Your task to perform on an android device: What's on my calendar tomorrow? Image 0: 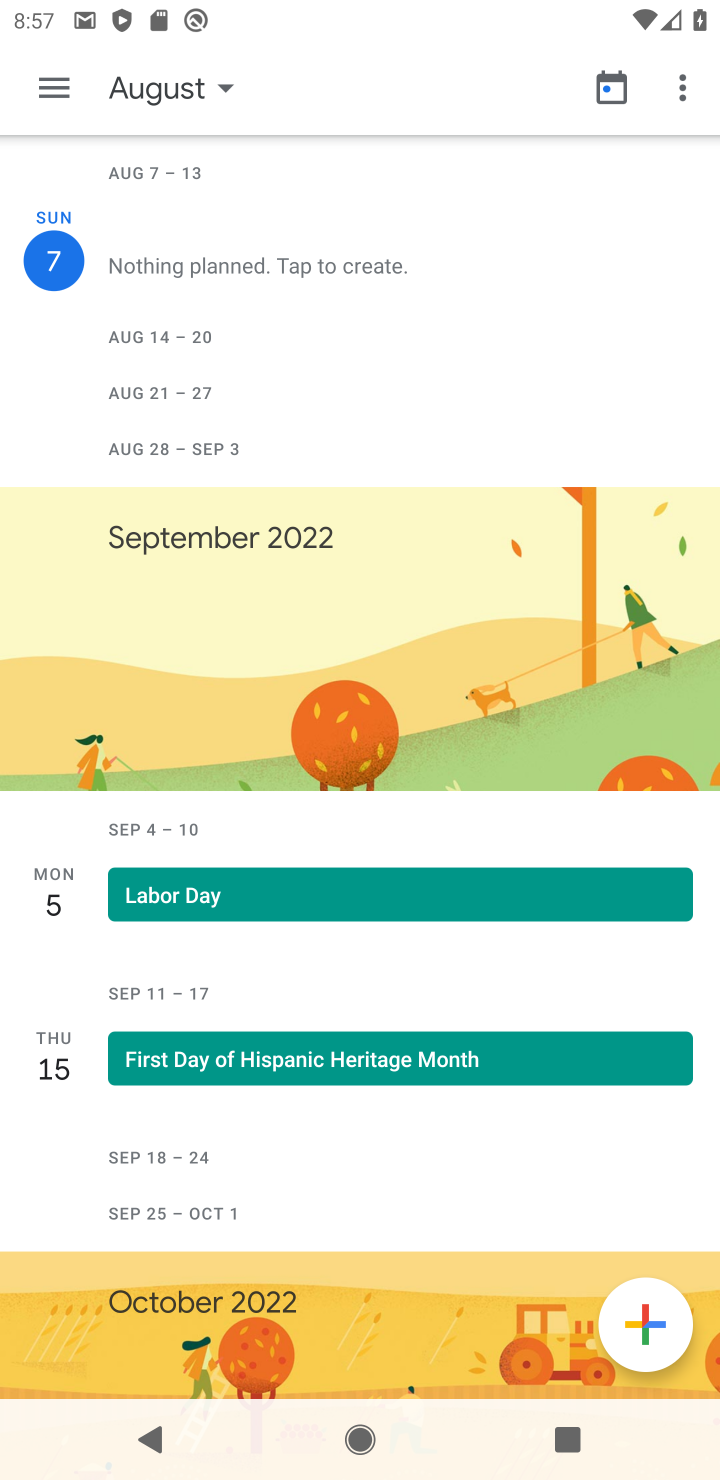
Step 0: press back button
Your task to perform on an android device: What's on my calendar tomorrow? Image 1: 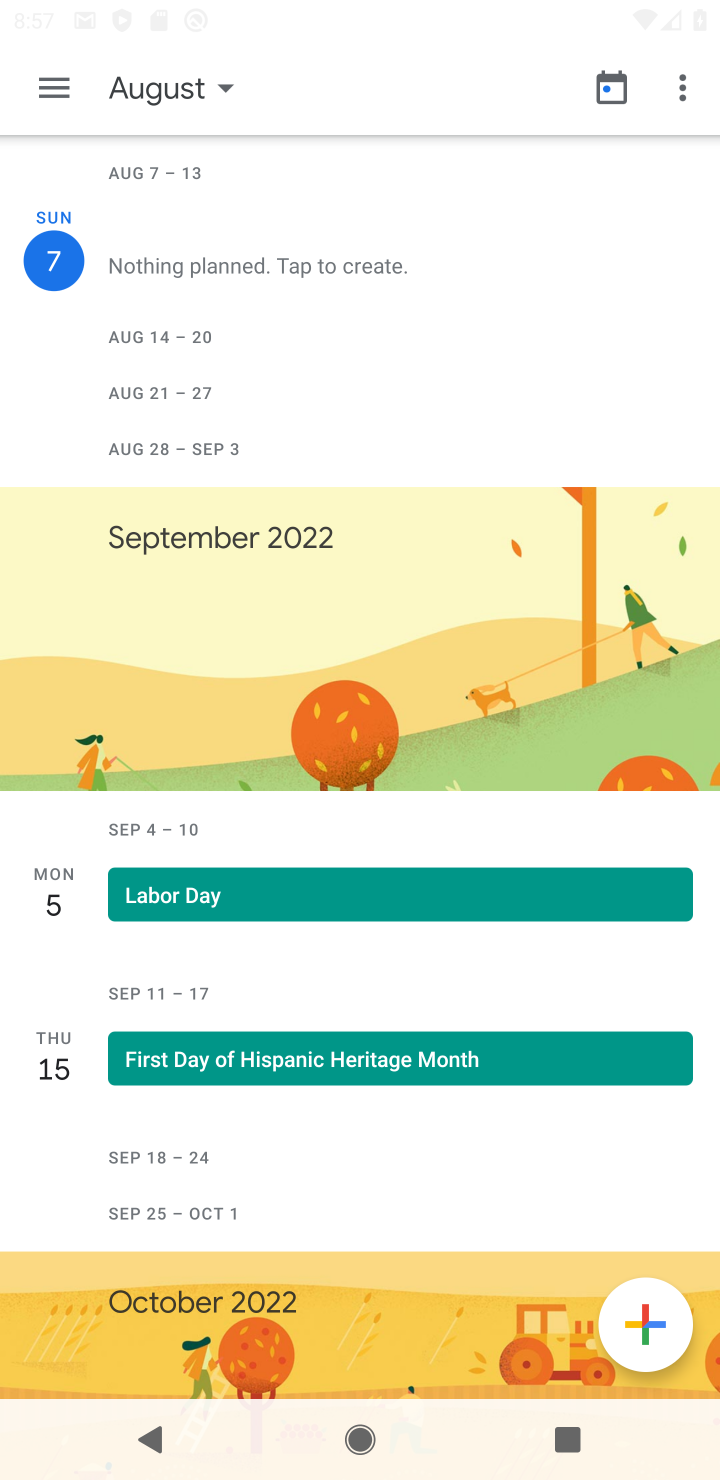
Step 1: press home button
Your task to perform on an android device: What's on my calendar tomorrow? Image 2: 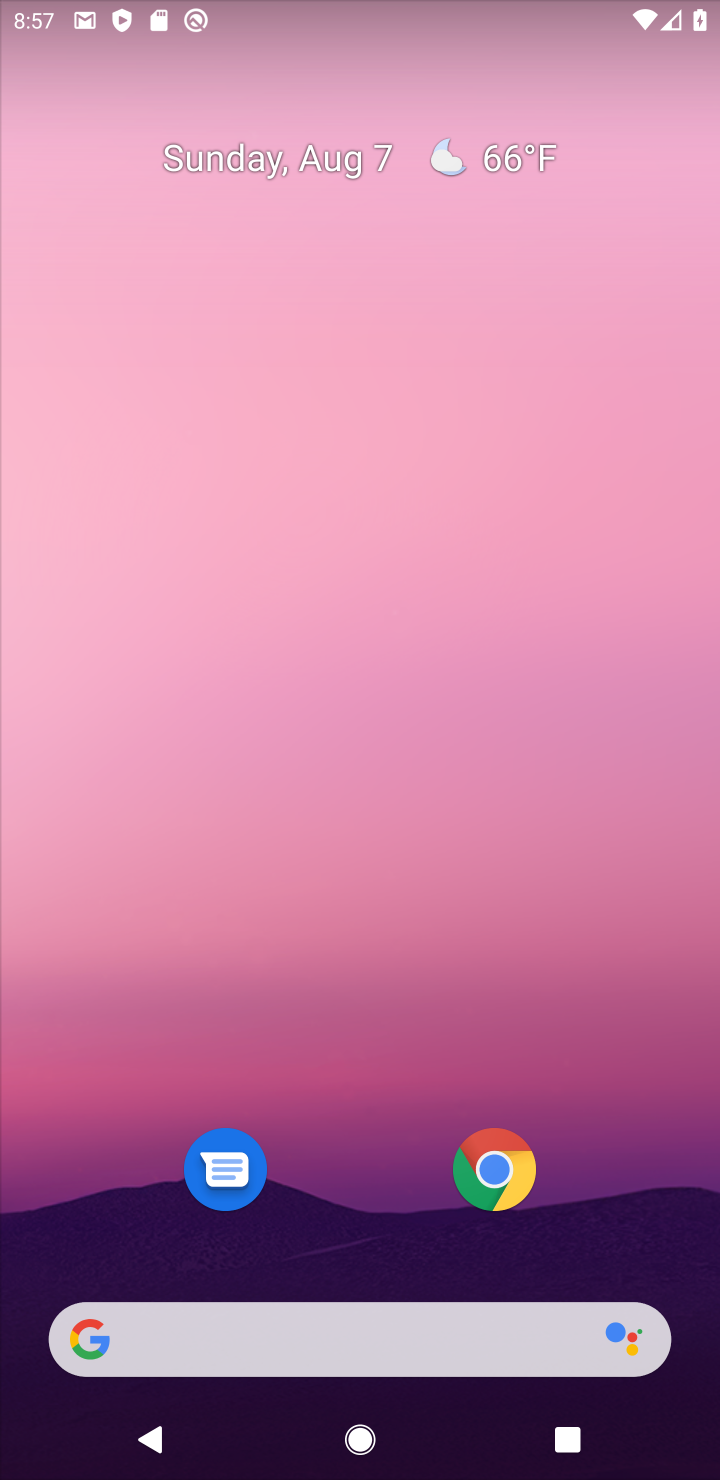
Step 2: drag from (336, 622) to (310, 231)
Your task to perform on an android device: What's on my calendar tomorrow? Image 3: 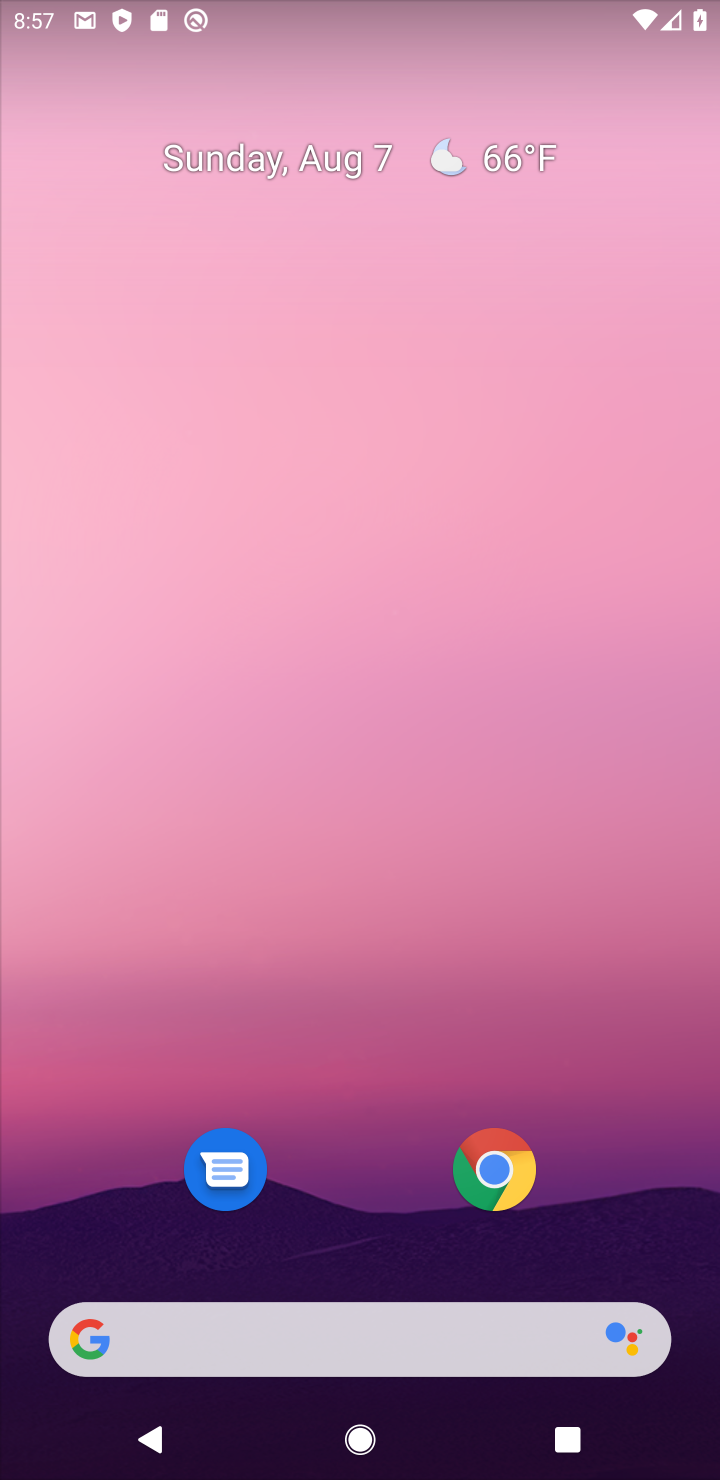
Step 3: drag from (483, 1242) to (379, 166)
Your task to perform on an android device: What's on my calendar tomorrow? Image 4: 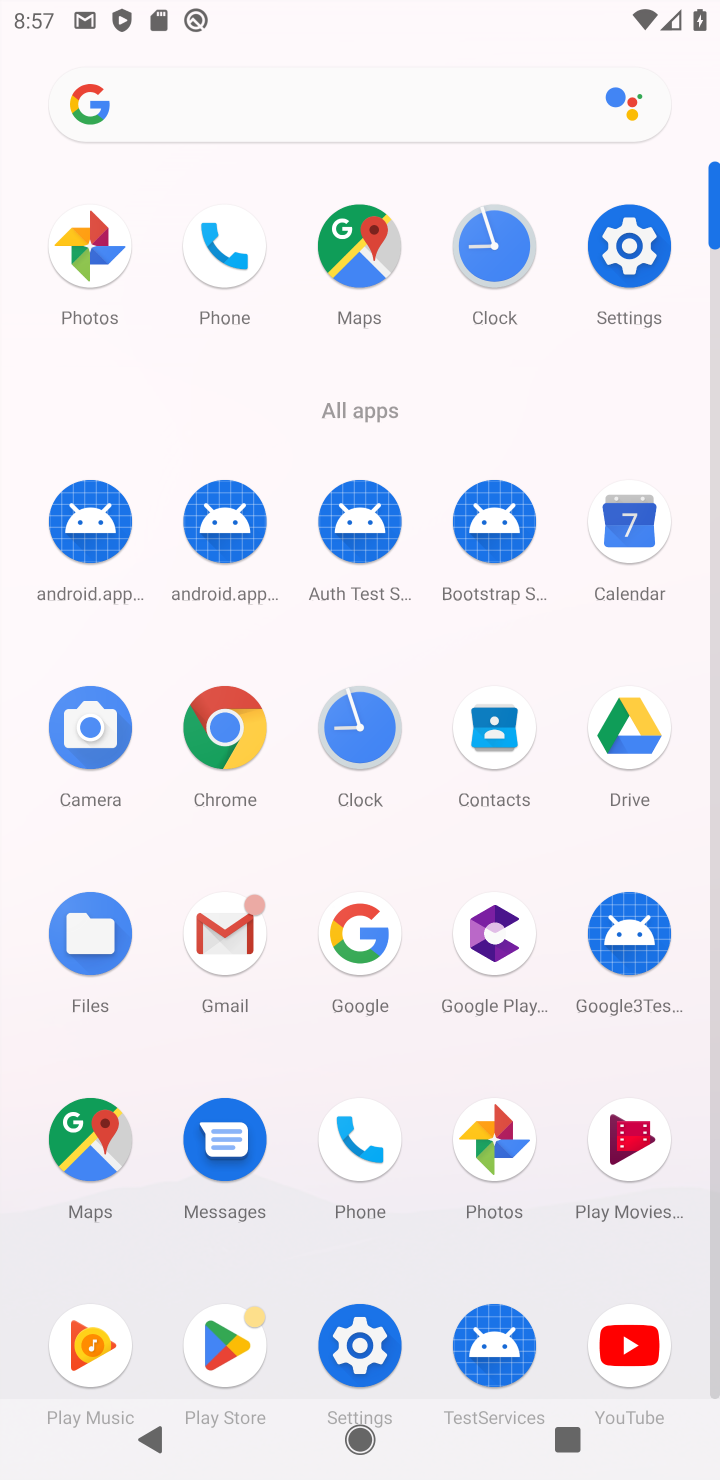
Step 4: click (622, 531)
Your task to perform on an android device: What's on my calendar tomorrow? Image 5: 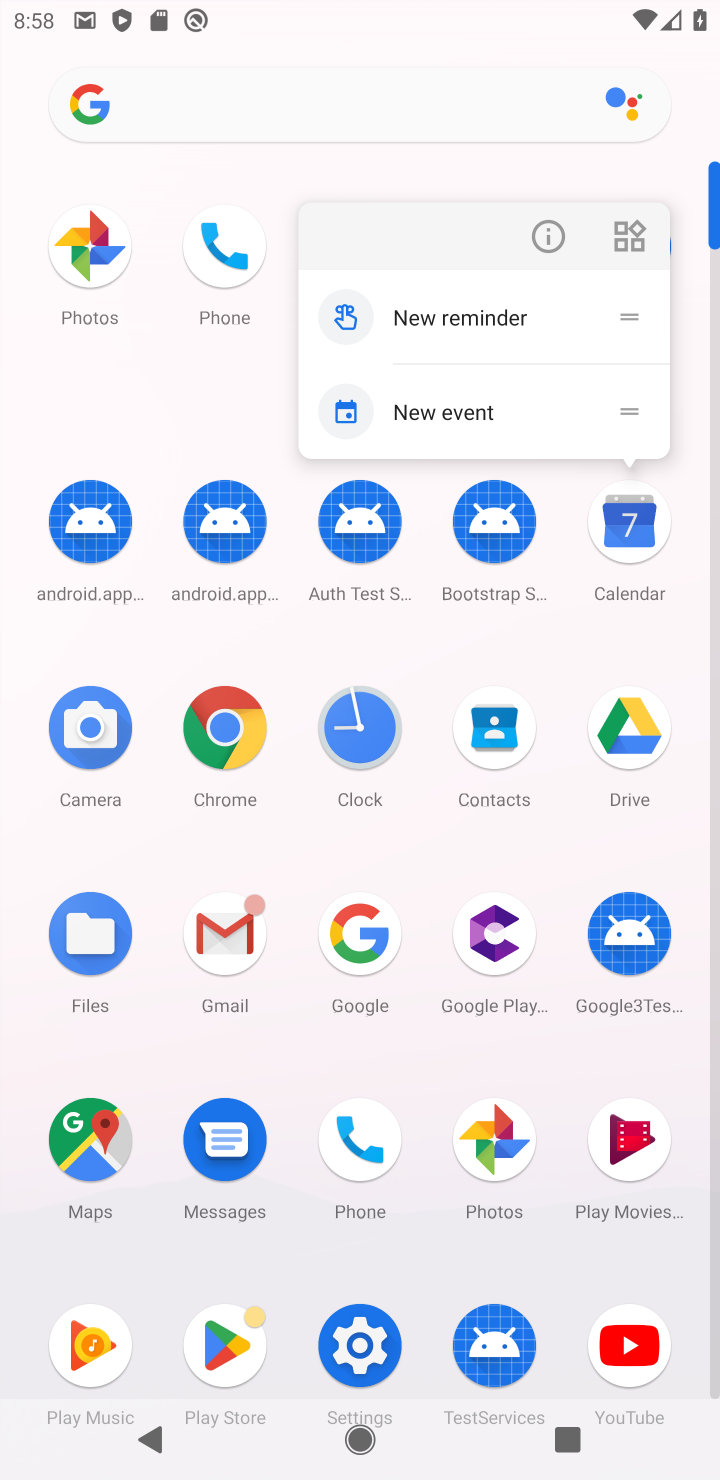
Step 5: click (641, 564)
Your task to perform on an android device: What's on my calendar tomorrow? Image 6: 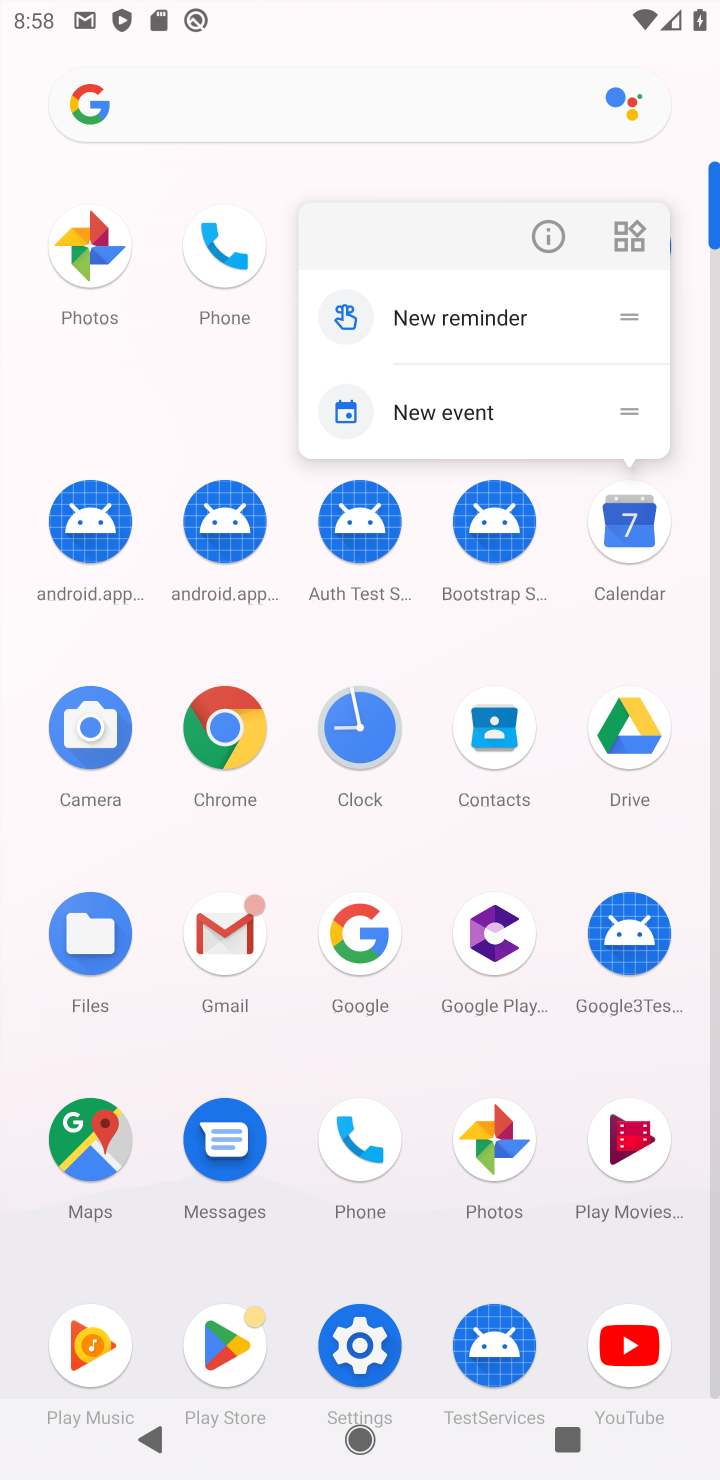
Step 6: click (608, 509)
Your task to perform on an android device: What's on my calendar tomorrow? Image 7: 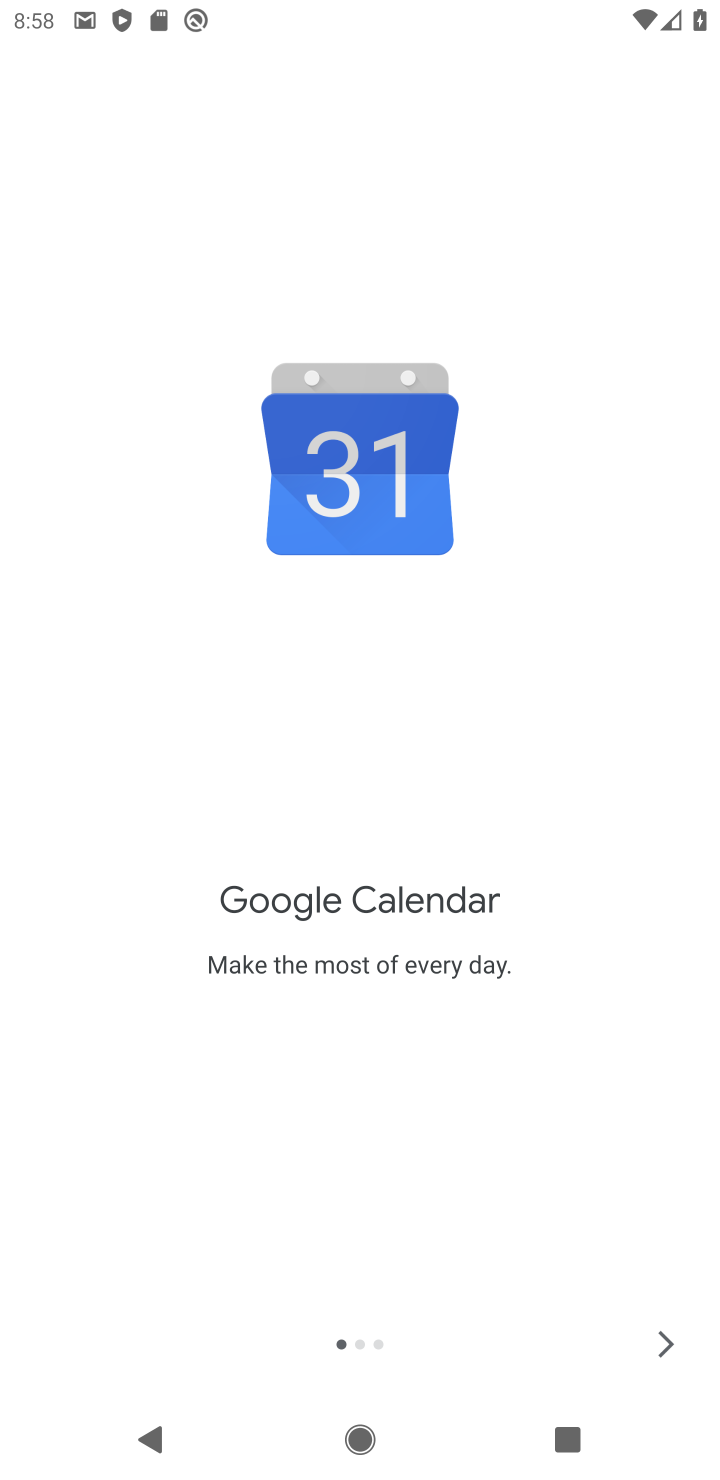
Step 7: click (650, 1355)
Your task to perform on an android device: What's on my calendar tomorrow? Image 8: 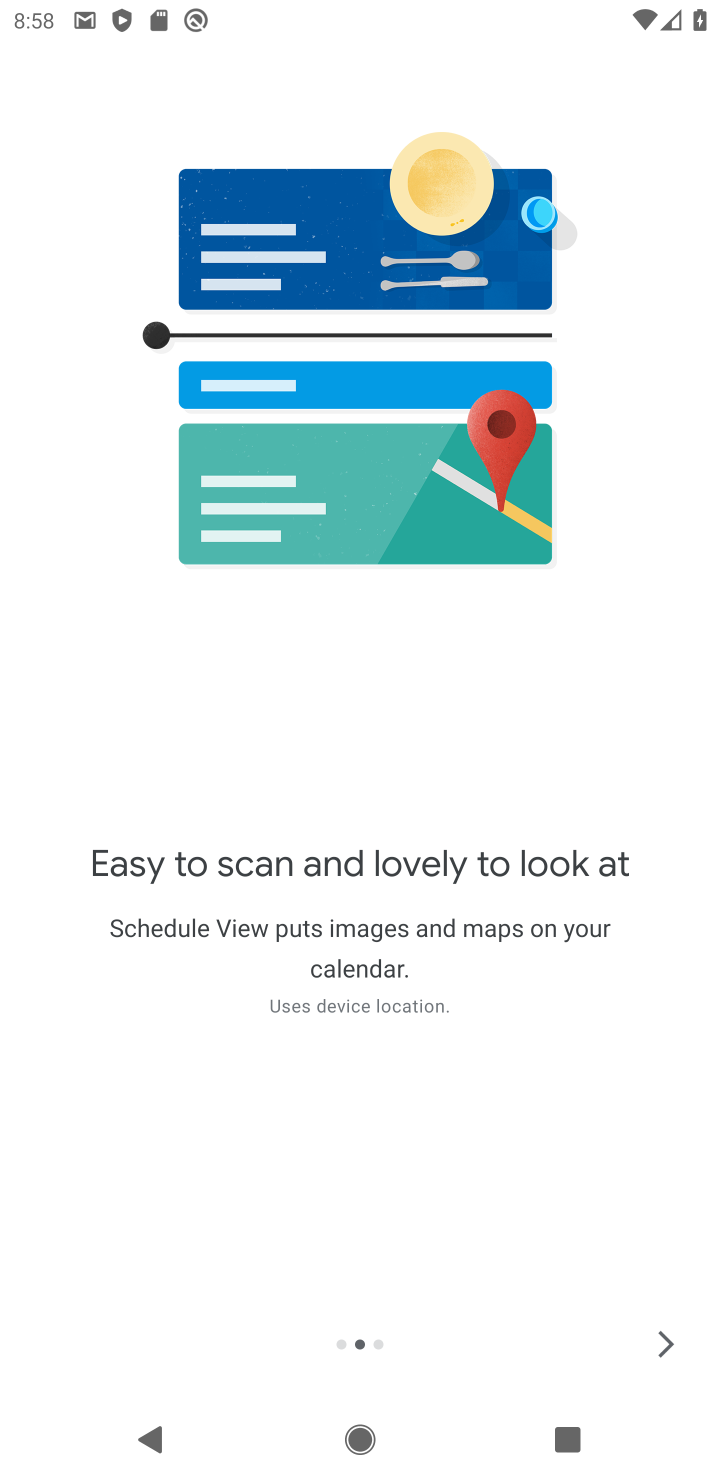
Step 8: click (652, 1357)
Your task to perform on an android device: What's on my calendar tomorrow? Image 9: 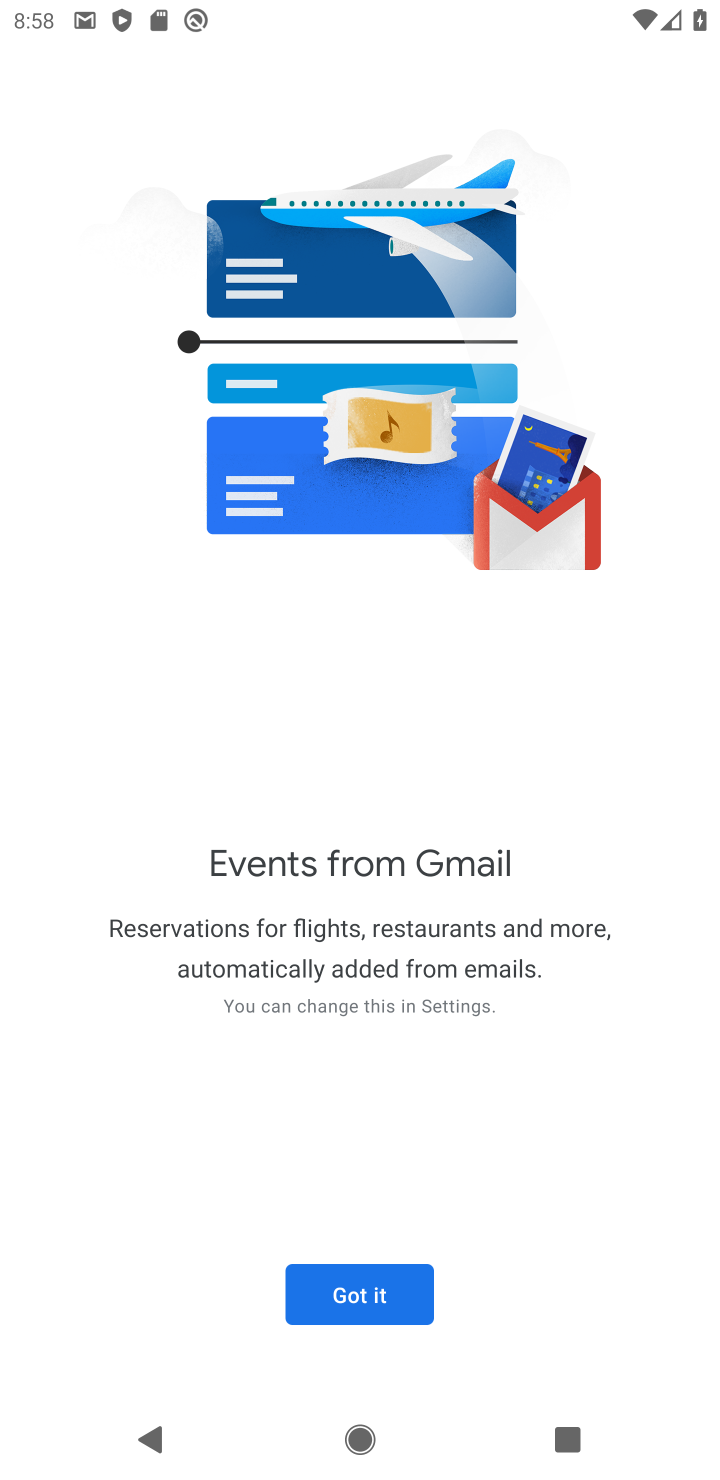
Step 9: click (400, 1272)
Your task to perform on an android device: What's on my calendar tomorrow? Image 10: 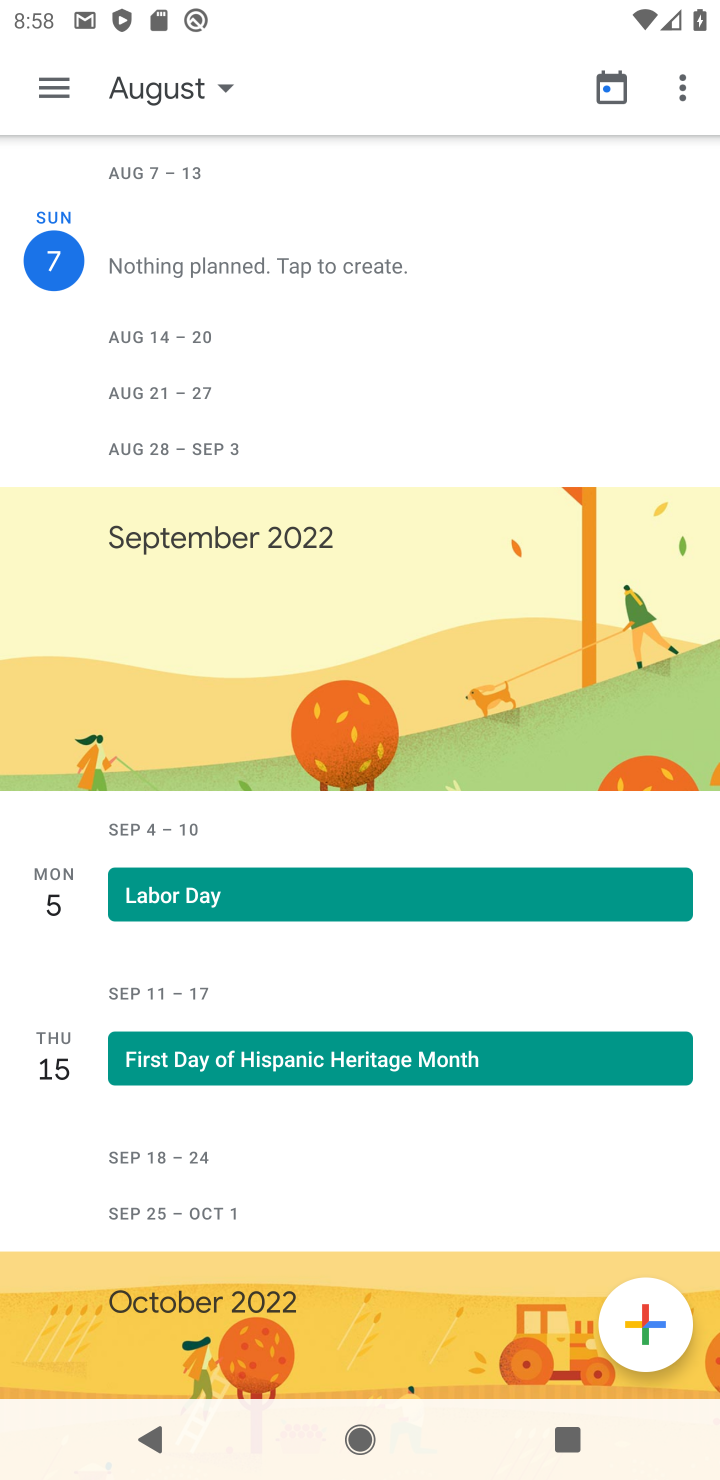
Step 10: click (51, 79)
Your task to perform on an android device: What's on my calendar tomorrow? Image 11: 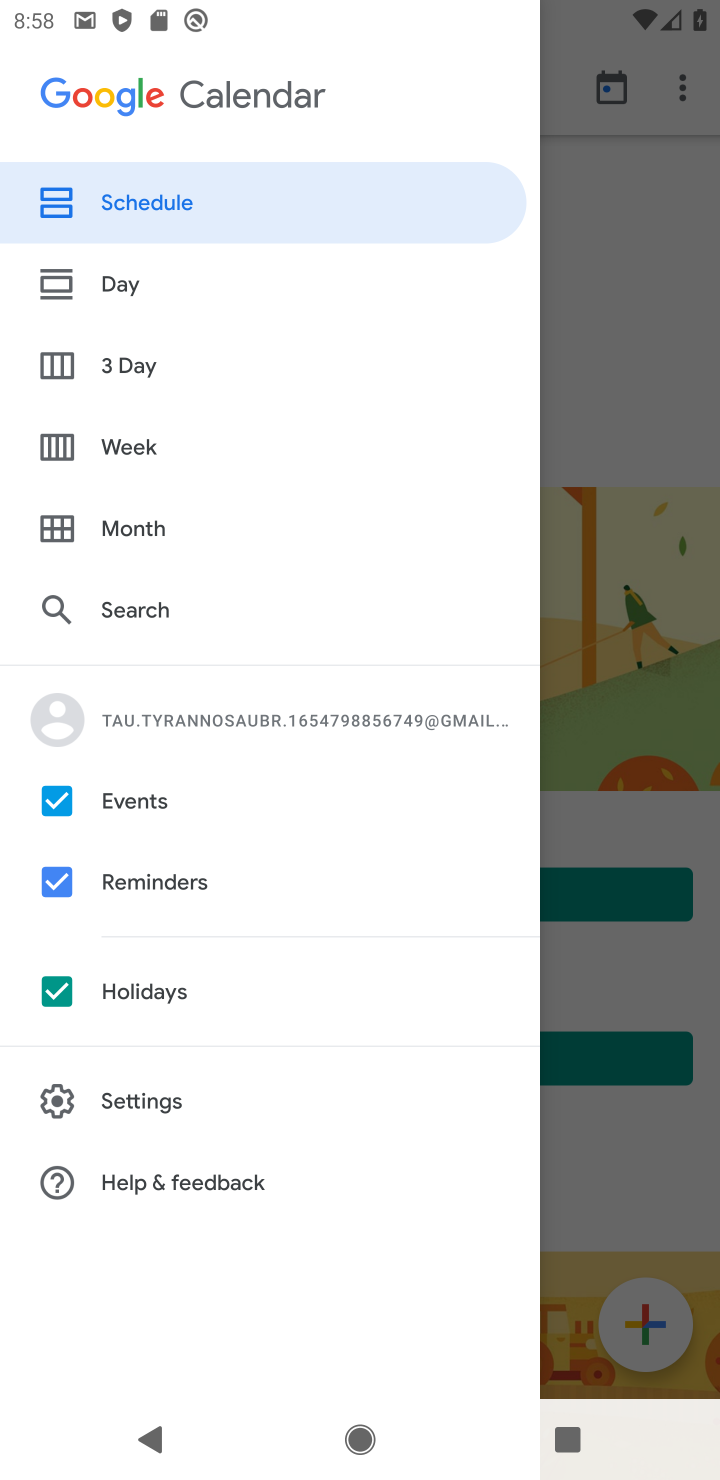
Step 11: click (167, 436)
Your task to perform on an android device: What's on my calendar tomorrow? Image 12: 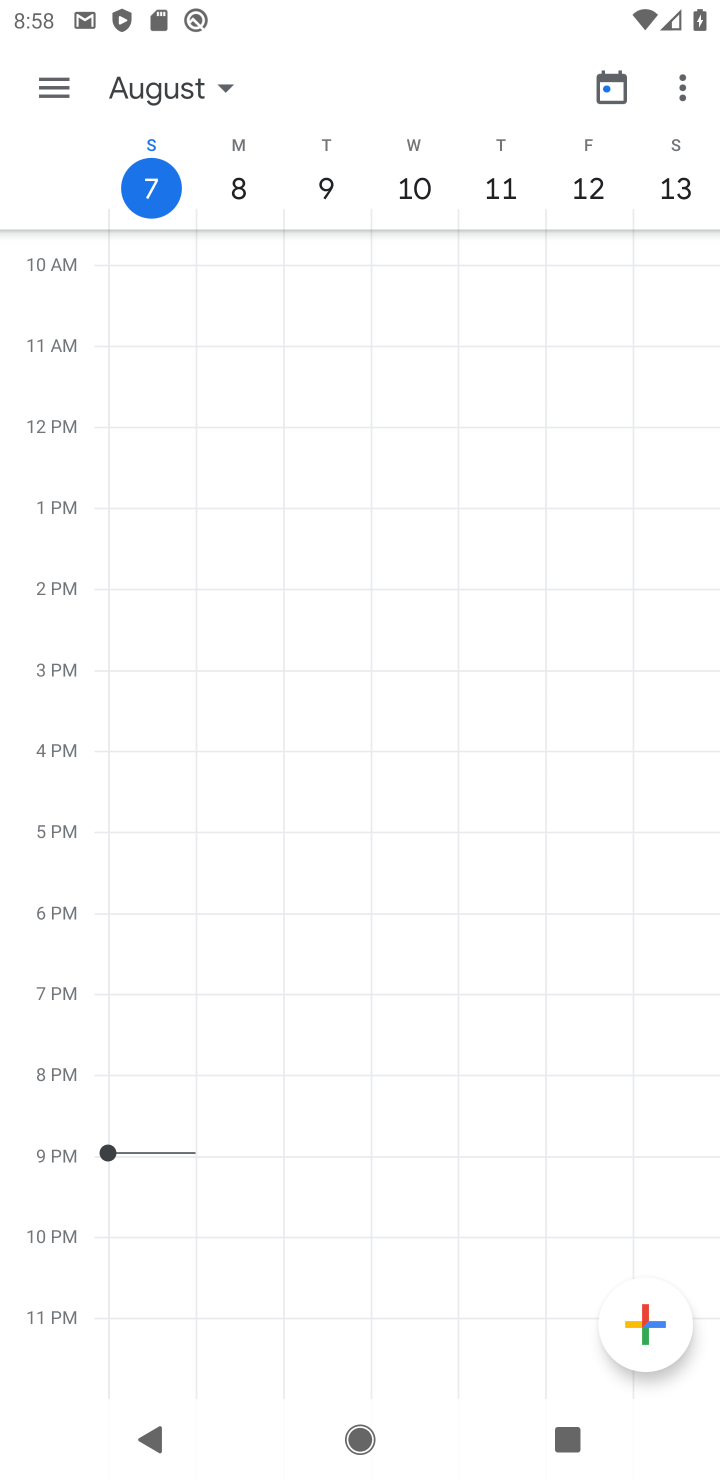
Step 12: click (222, 184)
Your task to perform on an android device: What's on my calendar tomorrow? Image 13: 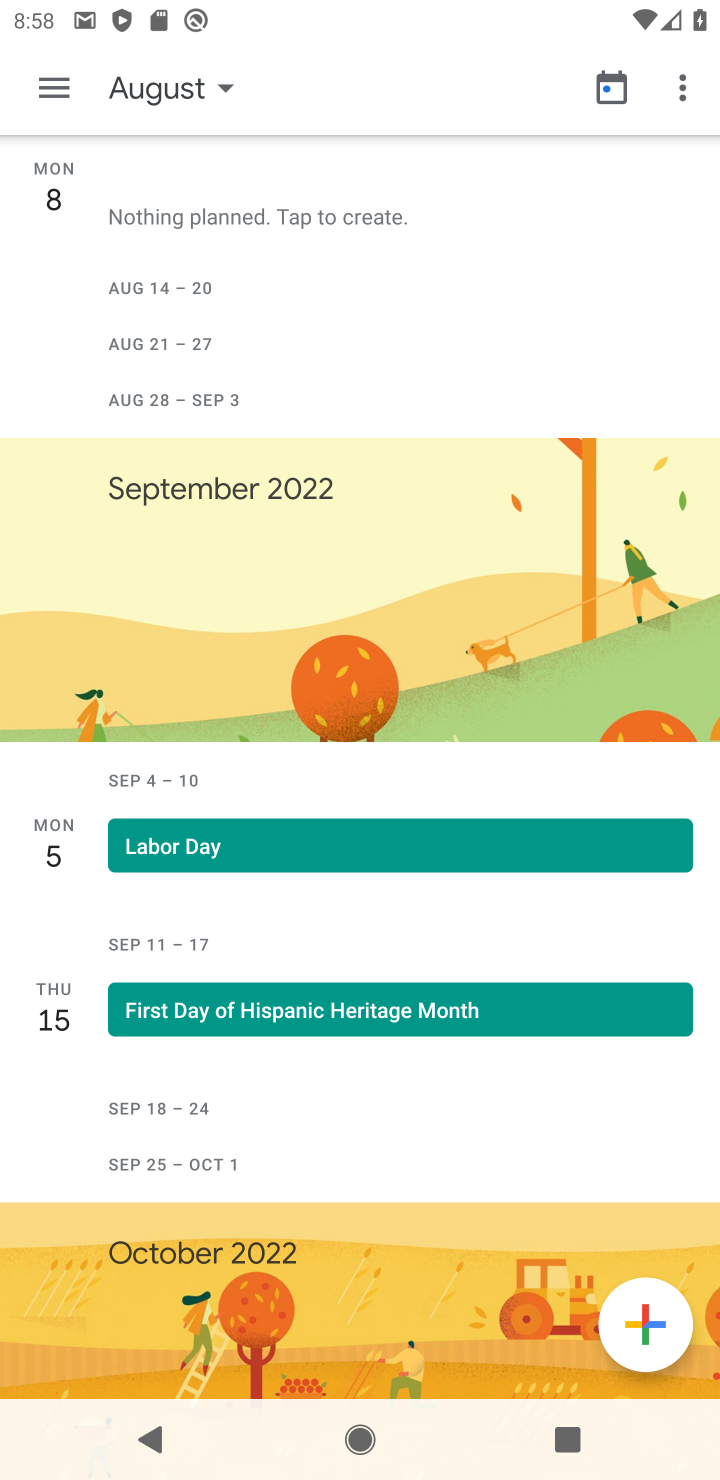
Step 13: task complete